Your task to perform on an android device: Open Google Maps and go to "Timeline" Image 0: 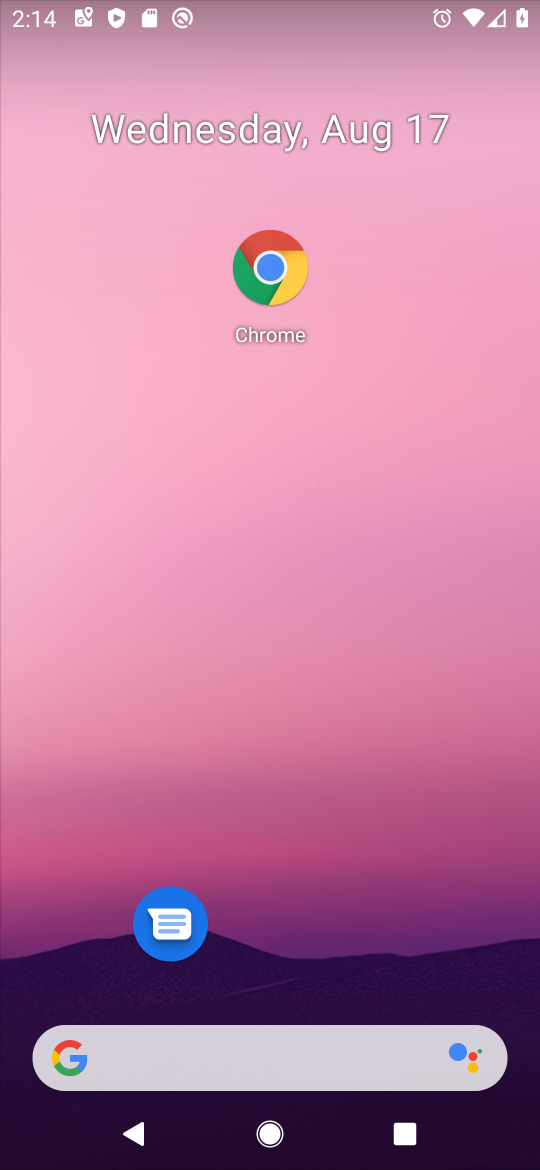
Step 0: drag from (267, 990) to (527, 525)
Your task to perform on an android device: Open Google Maps and go to "Timeline" Image 1: 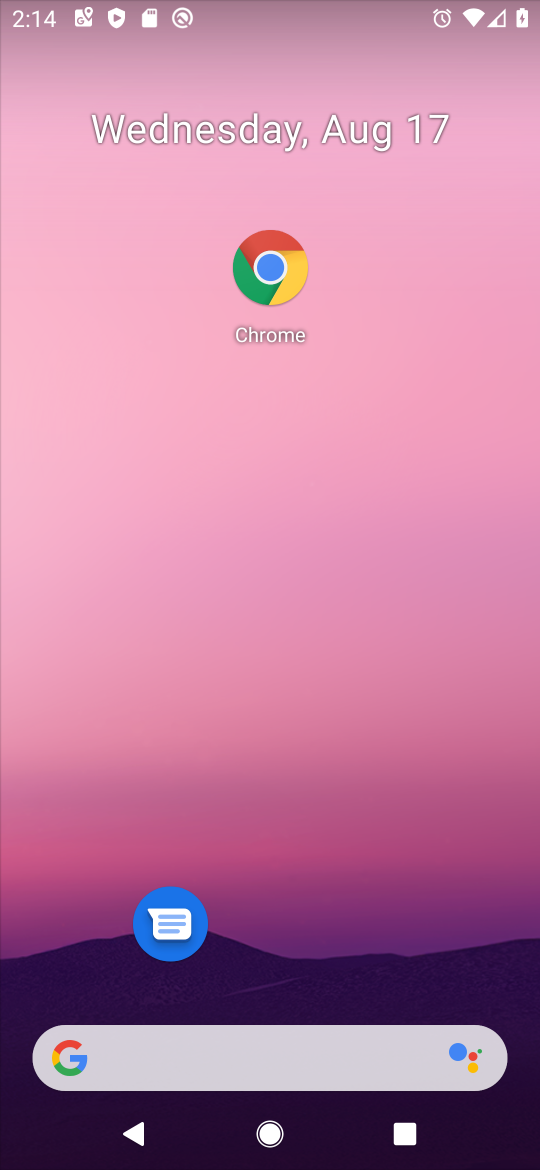
Step 1: drag from (276, 1004) to (249, 100)
Your task to perform on an android device: Open Google Maps and go to "Timeline" Image 2: 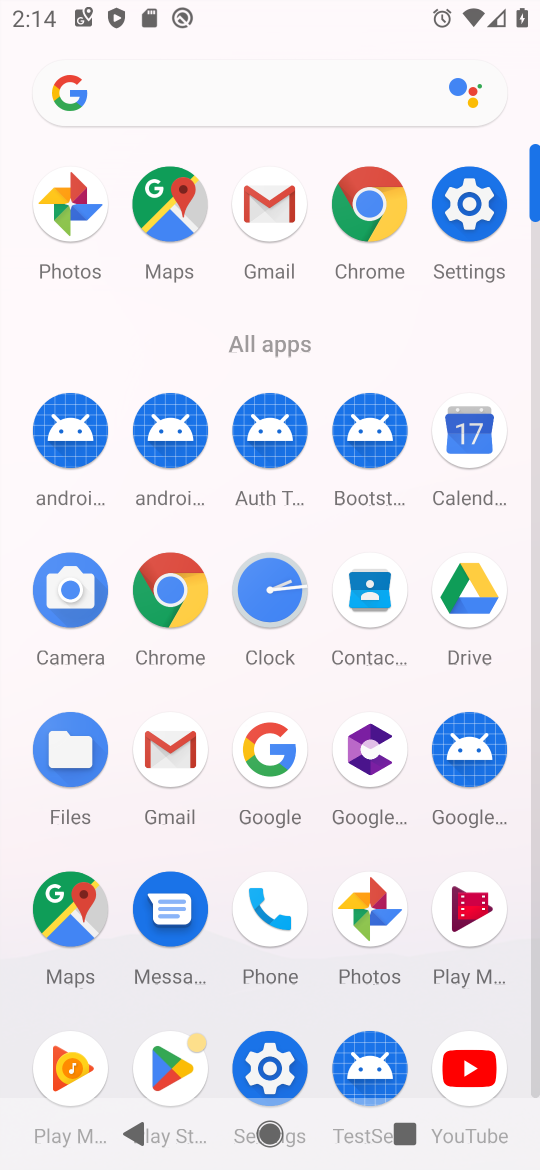
Step 2: click (75, 888)
Your task to perform on an android device: Open Google Maps and go to "Timeline" Image 3: 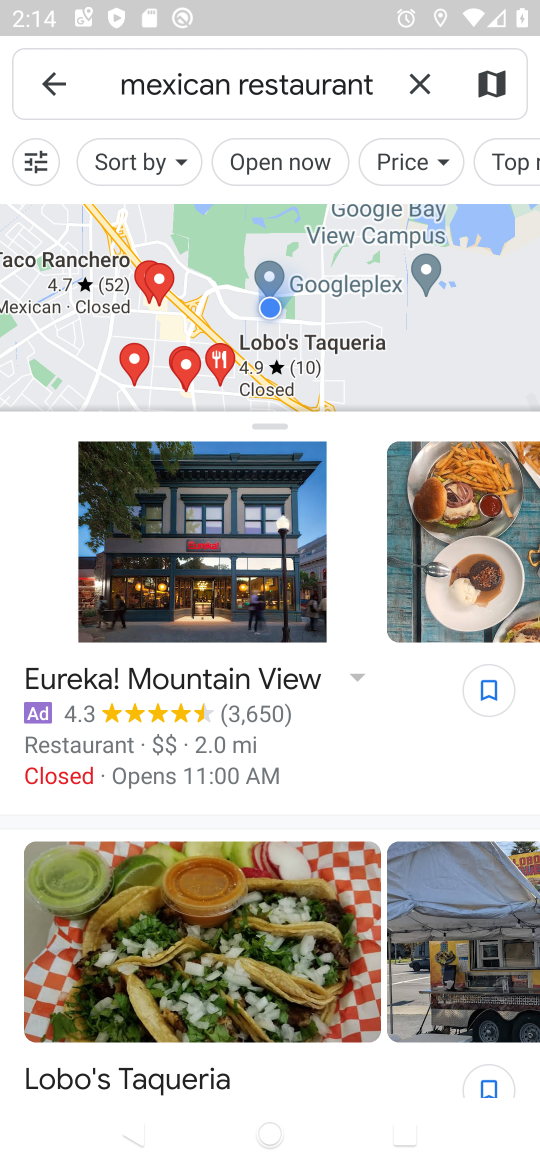
Step 3: click (51, 69)
Your task to perform on an android device: Open Google Maps and go to "Timeline" Image 4: 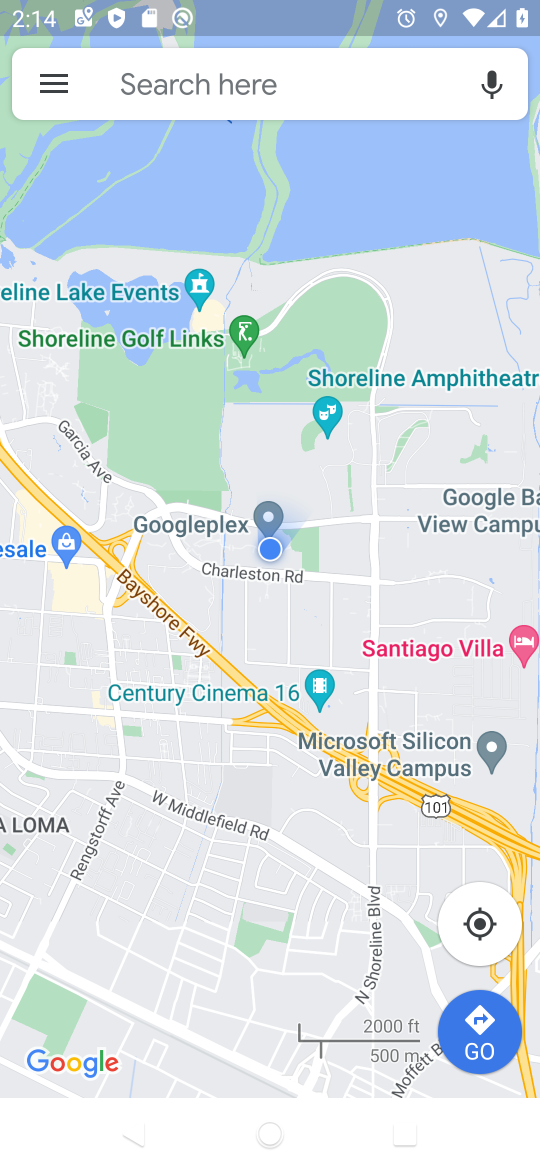
Step 4: click (29, 77)
Your task to perform on an android device: Open Google Maps and go to "Timeline" Image 5: 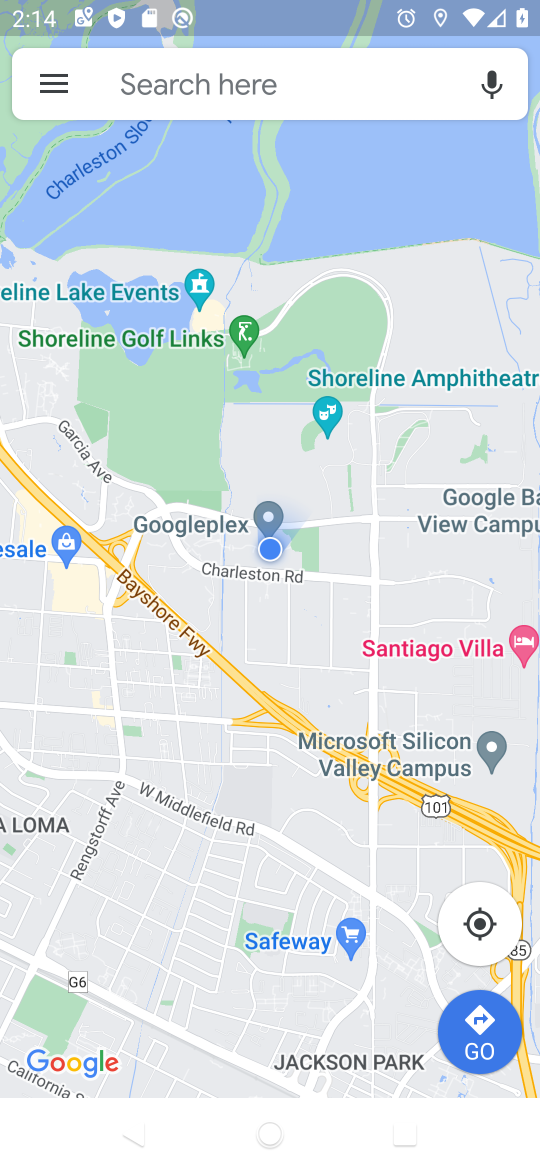
Step 5: click (40, 84)
Your task to perform on an android device: Open Google Maps and go to "Timeline" Image 6: 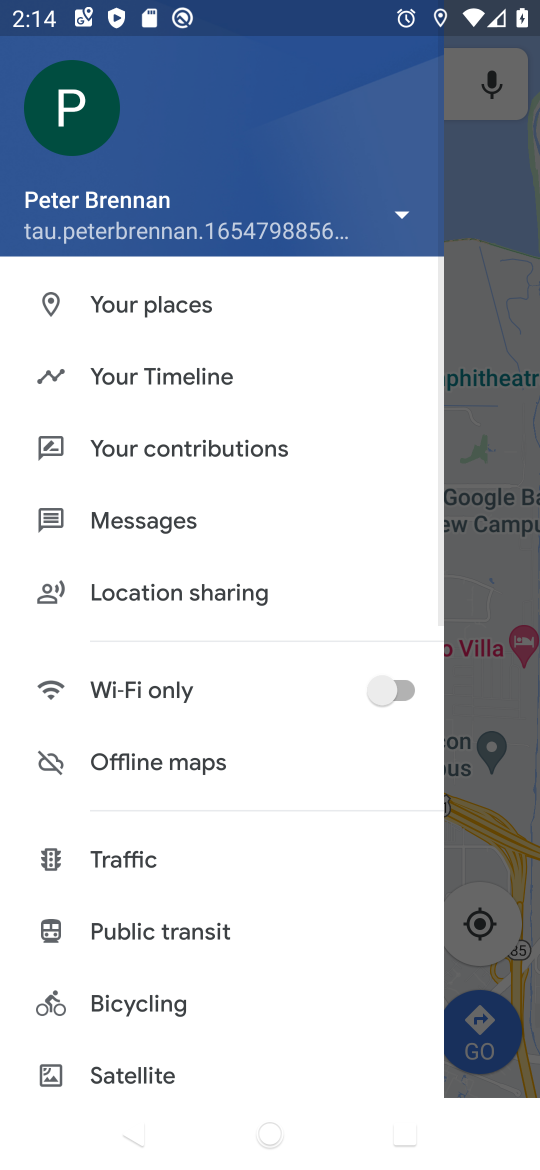
Step 6: click (120, 361)
Your task to perform on an android device: Open Google Maps and go to "Timeline" Image 7: 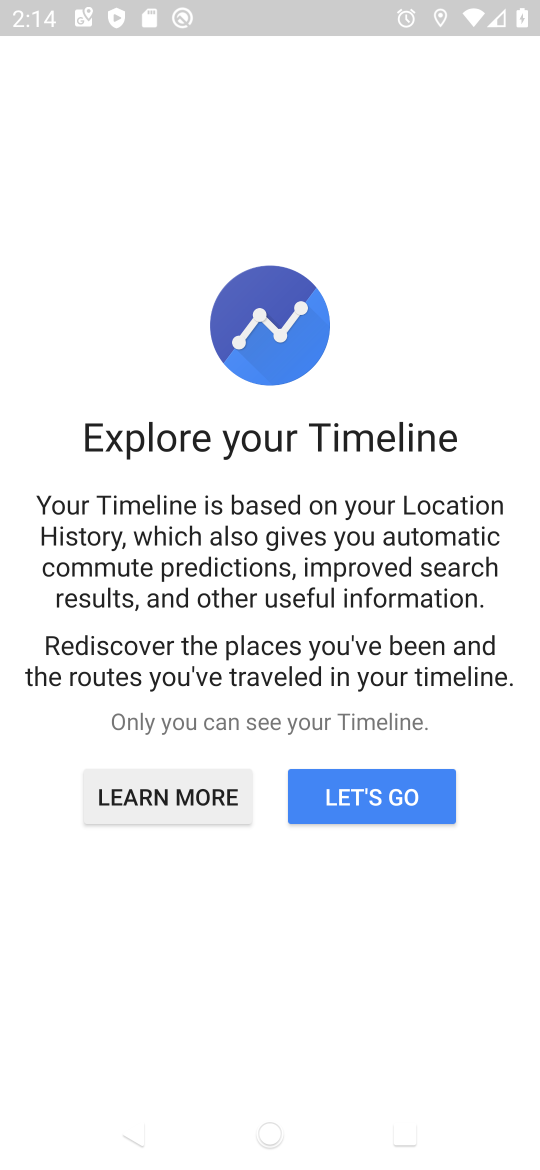
Step 7: click (410, 791)
Your task to perform on an android device: Open Google Maps and go to "Timeline" Image 8: 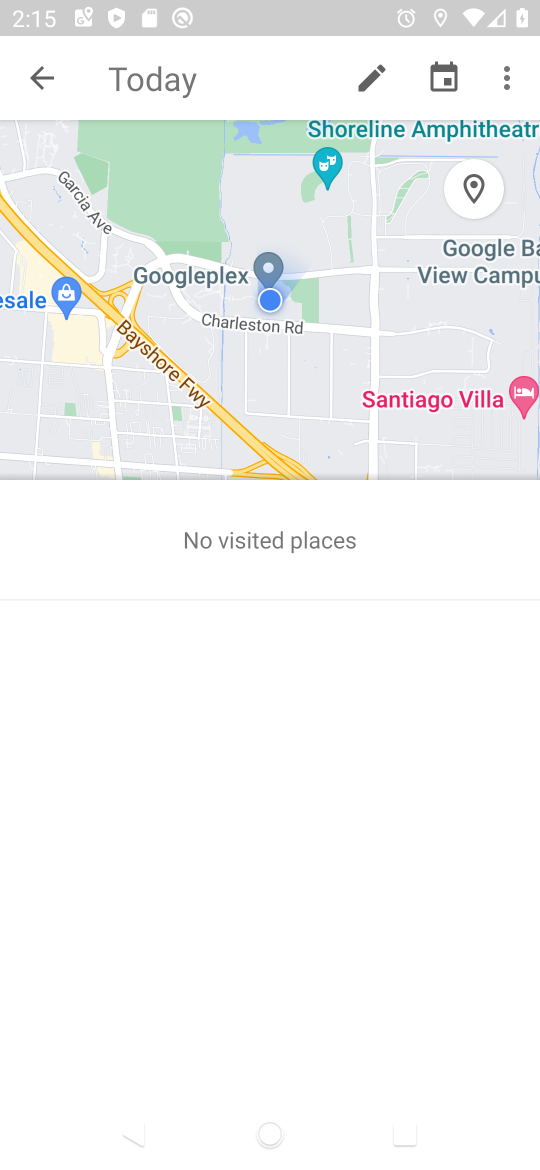
Step 8: task complete